Your task to perform on an android device: Go to Yahoo.com Image 0: 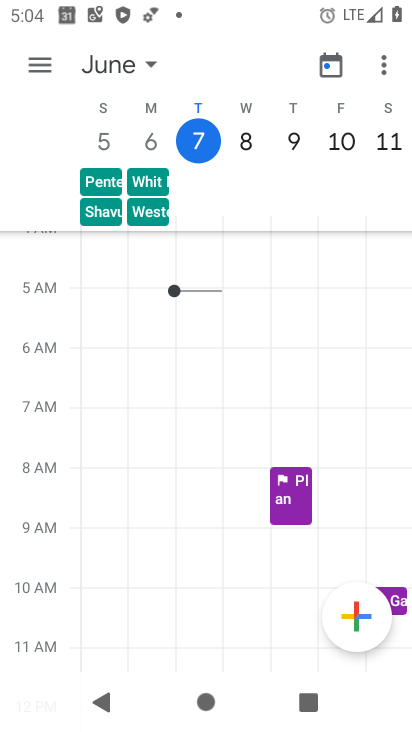
Step 0: press home button
Your task to perform on an android device: Go to Yahoo.com Image 1: 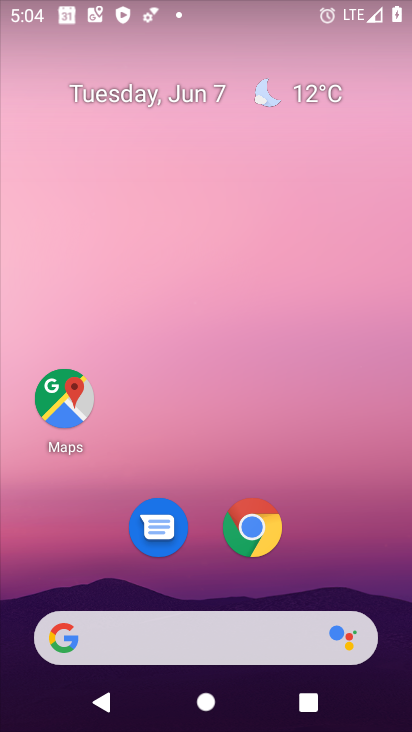
Step 1: click (252, 525)
Your task to perform on an android device: Go to Yahoo.com Image 2: 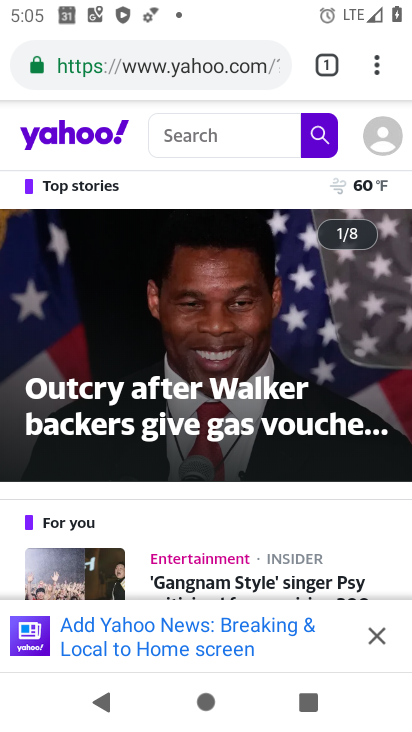
Step 2: task complete